Your task to perform on an android device: see sites visited before in the chrome app Image 0: 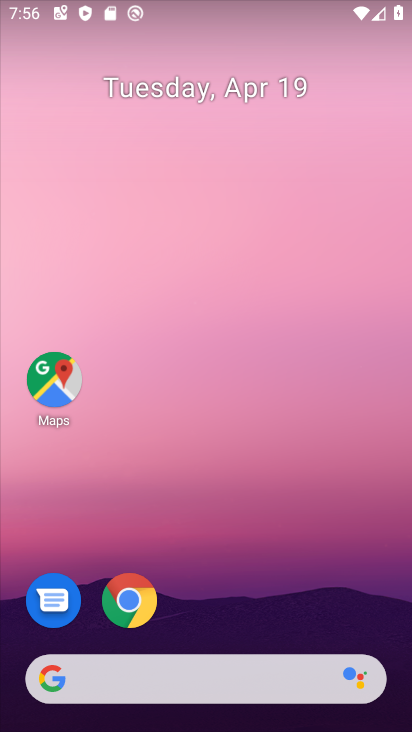
Step 0: drag from (263, 624) to (289, 30)
Your task to perform on an android device: see sites visited before in the chrome app Image 1: 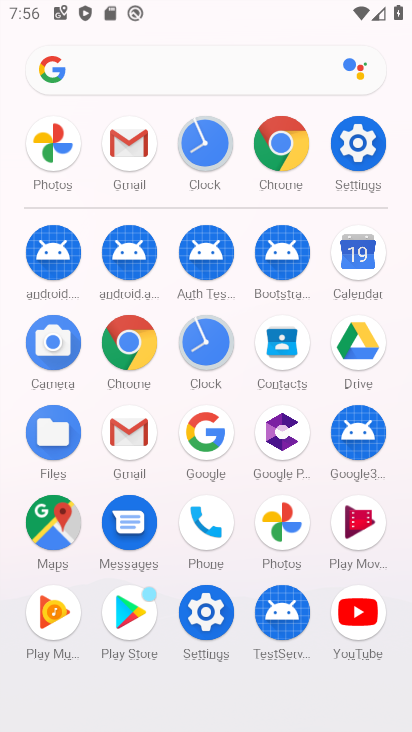
Step 1: click (150, 353)
Your task to perform on an android device: see sites visited before in the chrome app Image 2: 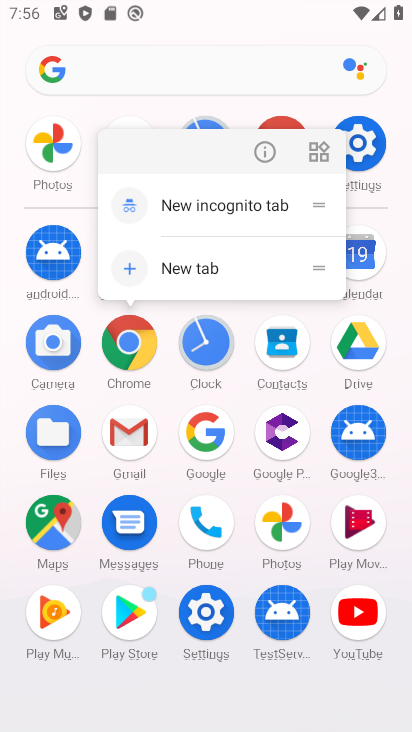
Step 2: click (138, 352)
Your task to perform on an android device: see sites visited before in the chrome app Image 3: 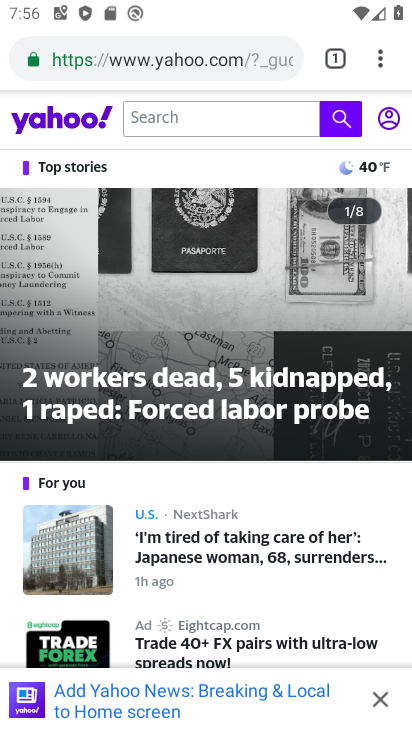
Step 3: press back button
Your task to perform on an android device: see sites visited before in the chrome app Image 4: 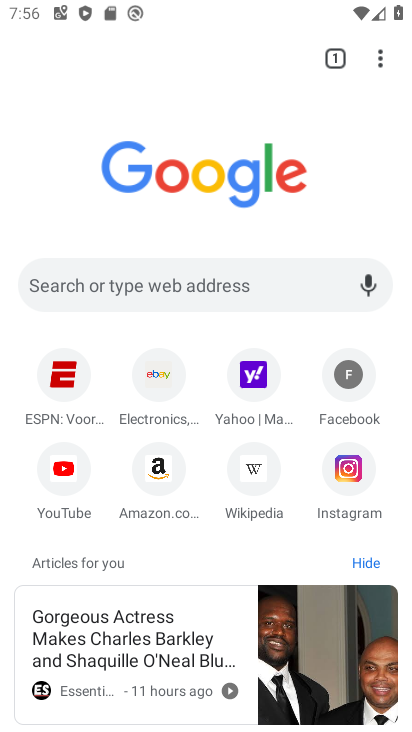
Step 4: click (379, 49)
Your task to perform on an android device: see sites visited before in the chrome app Image 5: 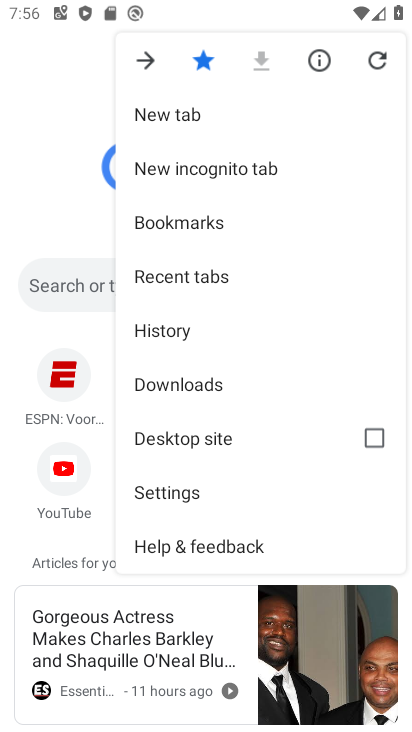
Step 5: click (178, 339)
Your task to perform on an android device: see sites visited before in the chrome app Image 6: 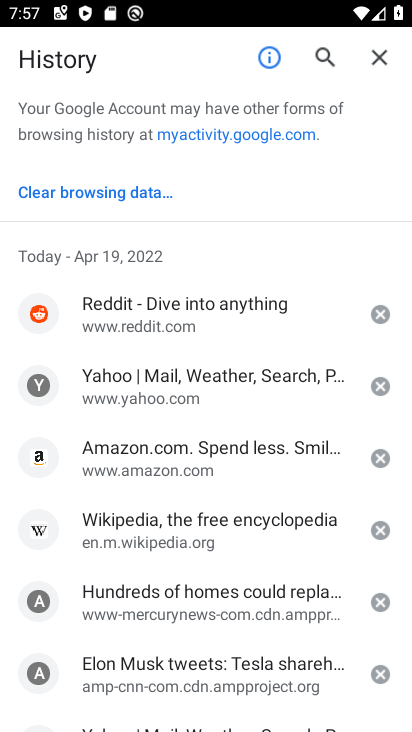
Step 6: click (191, 317)
Your task to perform on an android device: see sites visited before in the chrome app Image 7: 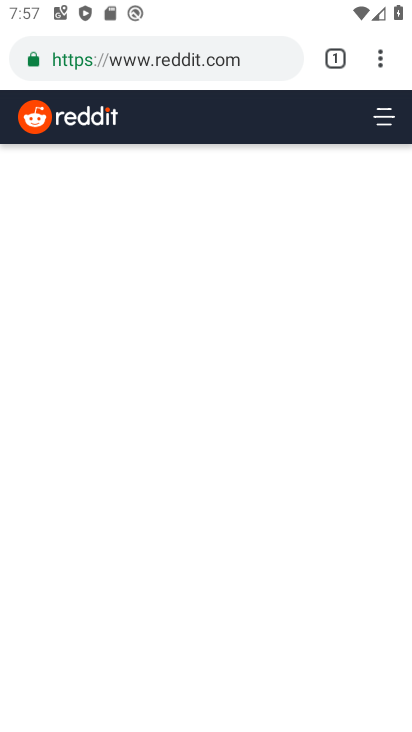
Step 7: task complete